Your task to perform on an android device: Show the shopping cart on costco.com. Search for "dell xps" on costco.com, select the first entry, and add it to the cart. Image 0: 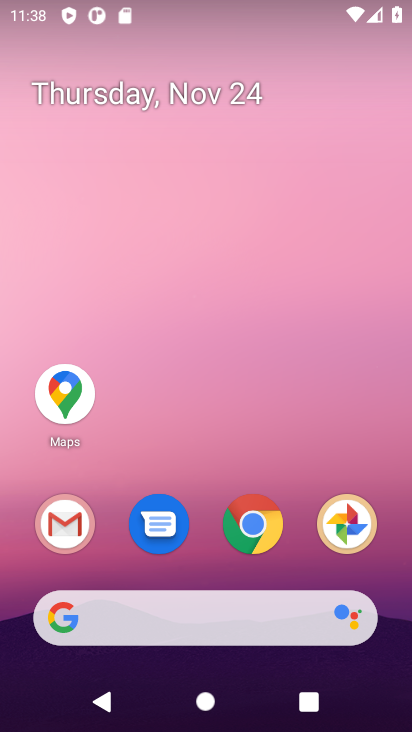
Step 0: click (257, 524)
Your task to perform on an android device: Show the shopping cart on costco.com. Search for "dell xps" on costco.com, select the first entry, and add it to the cart. Image 1: 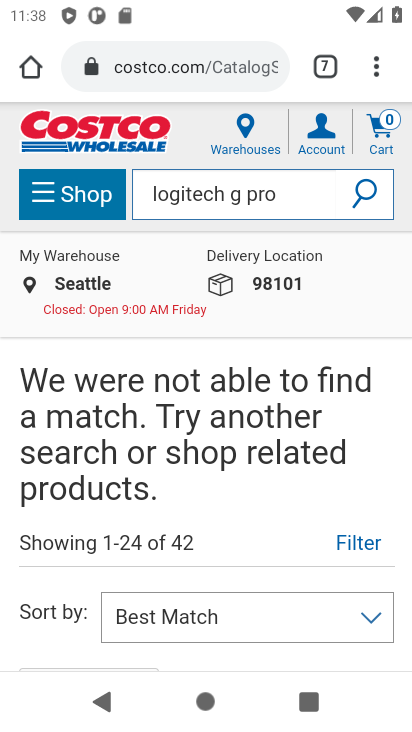
Step 1: click (375, 136)
Your task to perform on an android device: Show the shopping cart on costco.com. Search for "dell xps" on costco.com, select the first entry, and add it to the cart. Image 2: 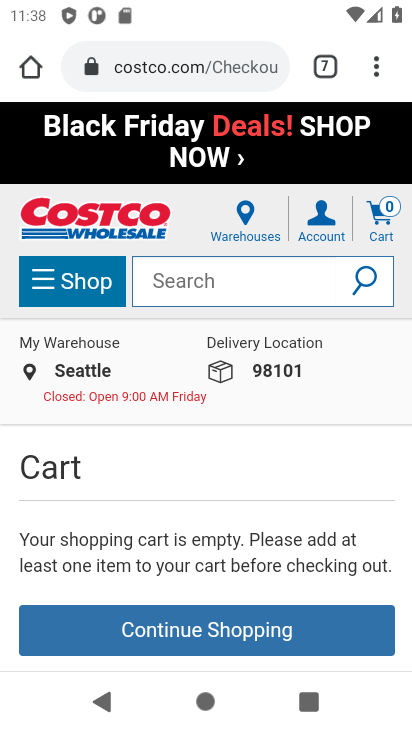
Step 2: drag from (236, 463) to (236, 286)
Your task to perform on an android device: Show the shopping cart on costco.com. Search for "dell xps" on costco.com, select the first entry, and add it to the cart. Image 3: 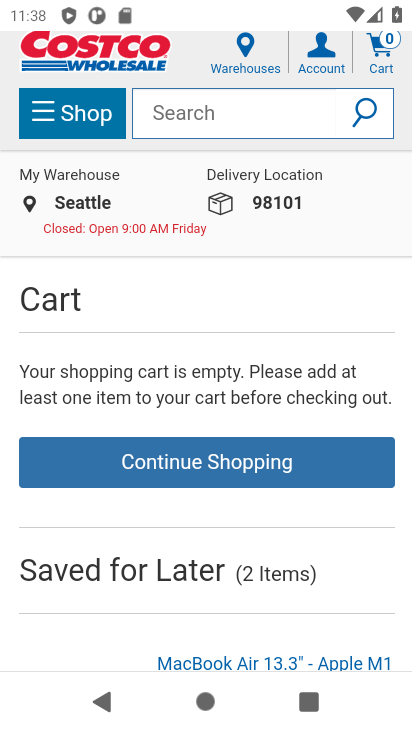
Step 3: click (160, 118)
Your task to perform on an android device: Show the shopping cart on costco.com. Search for "dell xps" on costco.com, select the first entry, and add it to the cart. Image 4: 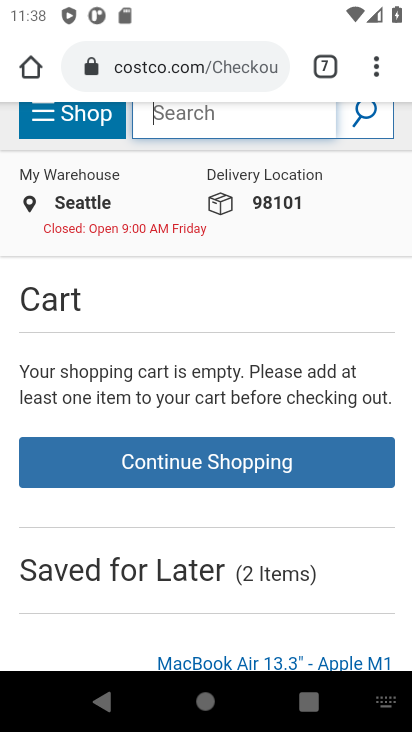
Step 4: type "dell xps"
Your task to perform on an android device: Show the shopping cart on costco.com. Search for "dell xps" on costco.com, select the first entry, and add it to the cart. Image 5: 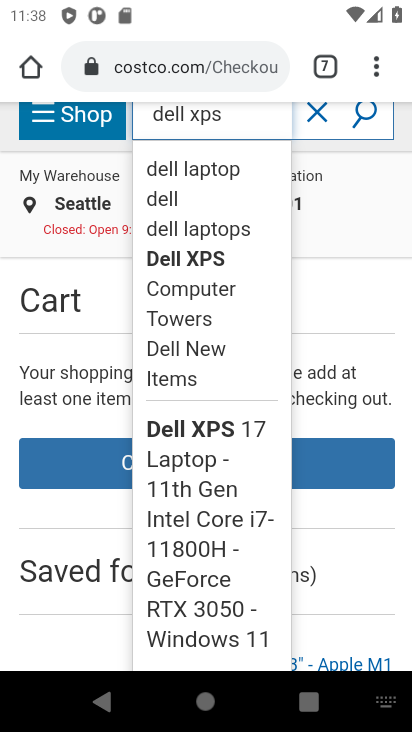
Step 5: click (370, 119)
Your task to perform on an android device: Show the shopping cart on costco.com. Search for "dell xps" on costco.com, select the first entry, and add it to the cart. Image 6: 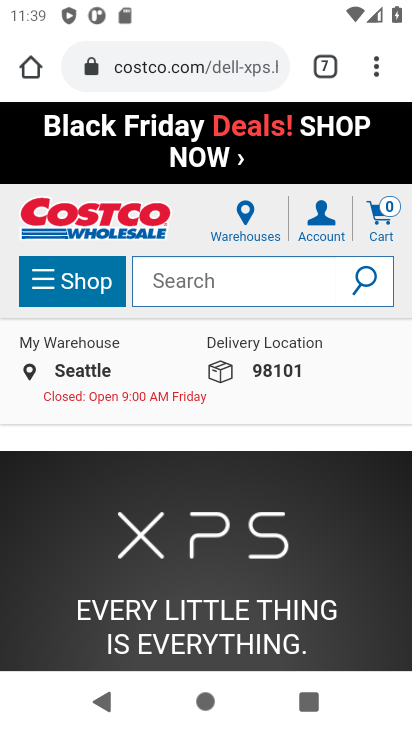
Step 6: task complete